Your task to perform on an android device: Open the calendar app, open the side menu, and click the "Day" option Image 0: 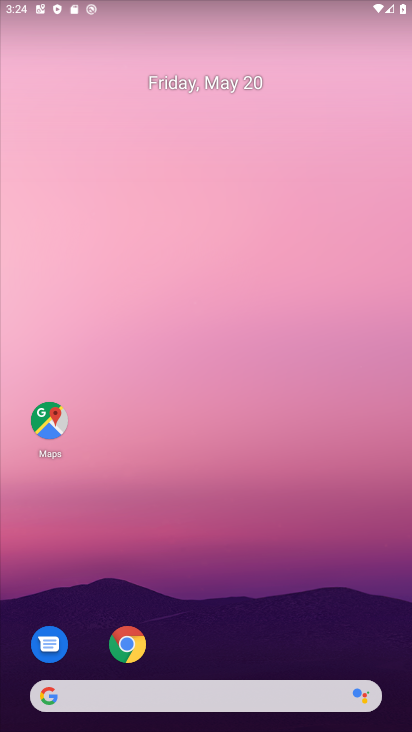
Step 0: drag from (261, 599) to (197, 142)
Your task to perform on an android device: Open the calendar app, open the side menu, and click the "Day" option Image 1: 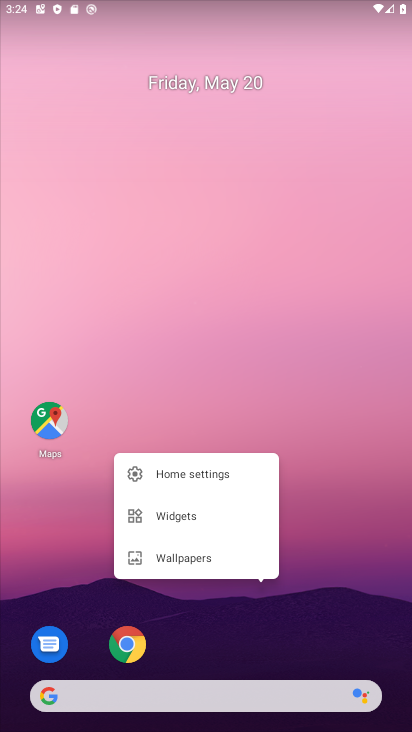
Step 1: click (238, 305)
Your task to perform on an android device: Open the calendar app, open the side menu, and click the "Day" option Image 2: 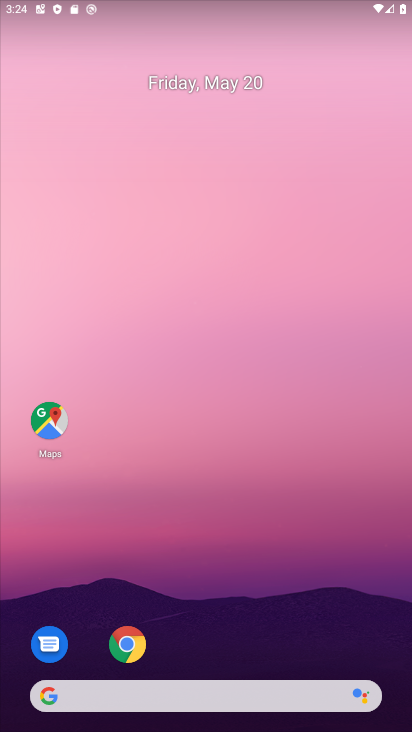
Step 2: drag from (261, 565) to (272, 244)
Your task to perform on an android device: Open the calendar app, open the side menu, and click the "Day" option Image 3: 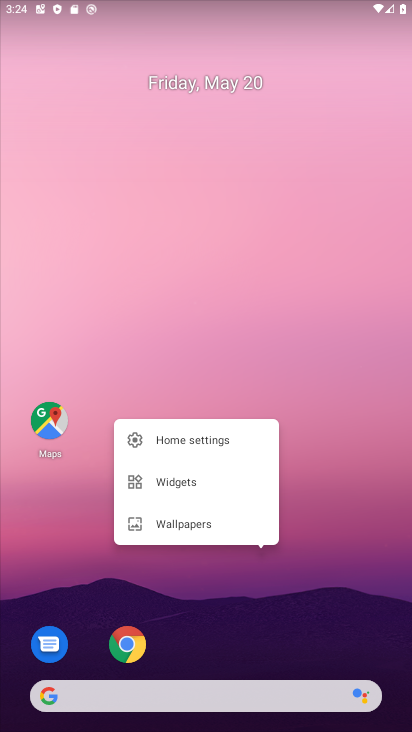
Step 3: click (272, 244)
Your task to perform on an android device: Open the calendar app, open the side menu, and click the "Day" option Image 4: 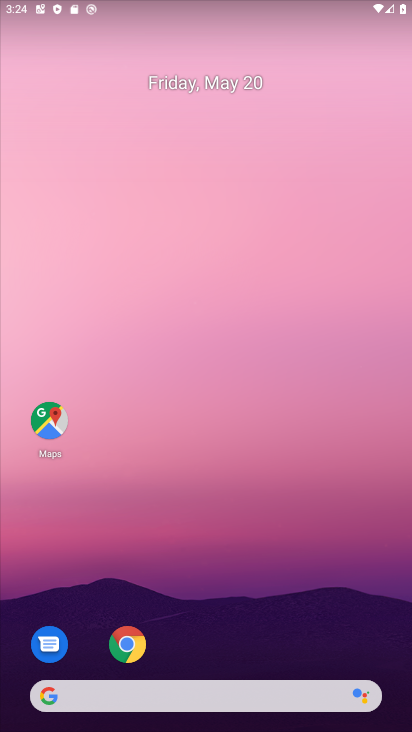
Step 4: drag from (273, 578) to (226, 233)
Your task to perform on an android device: Open the calendar app, open the side menu, and click the "Day" option Image 5: 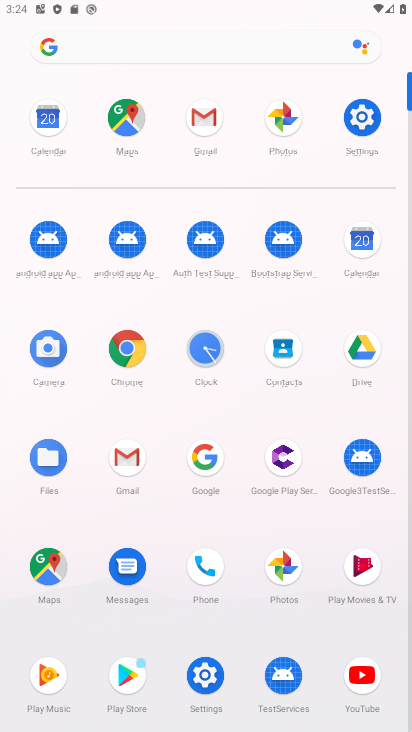
Step 5: click (46, 152)
Your task to perform on an android device: Open the calendar app, open the side menu, and click the "Day" option Image 6: 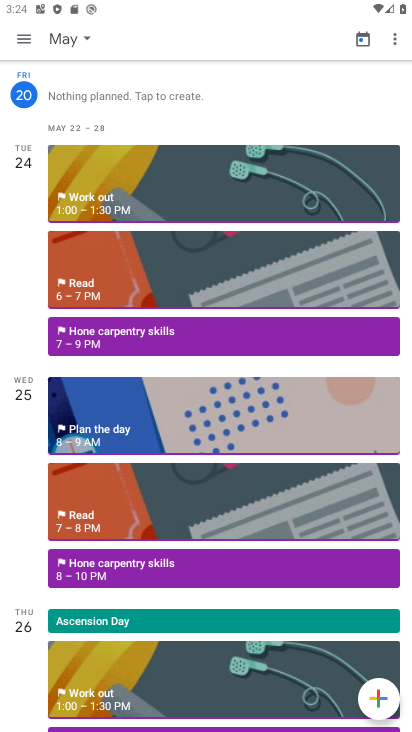
Step 6: click (22, 27)
Your task to perform on an android device: Open the calendar app, open the side menu, and click the "Day" option Image 7: 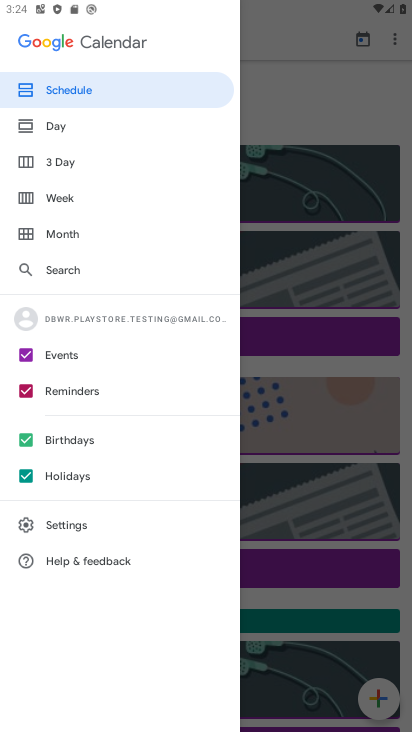
Step 7: click (52, 117)
Your task to perform on an android device: Open the calendar app, open the side menu, and click the "Day" option Image 8: 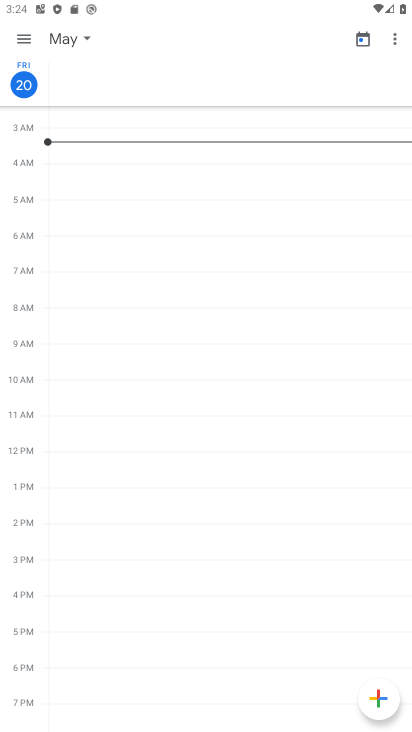
Step 8: task complete